Your task to perform on an android device: manage bookmarks in the chrome app Image 0: 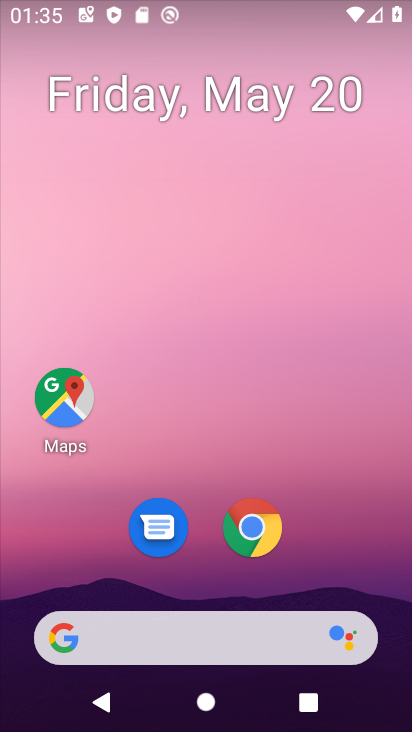
Step 0: press home button
Your task to perform on an android device: manage bookmarks in the chrome app Image 1: 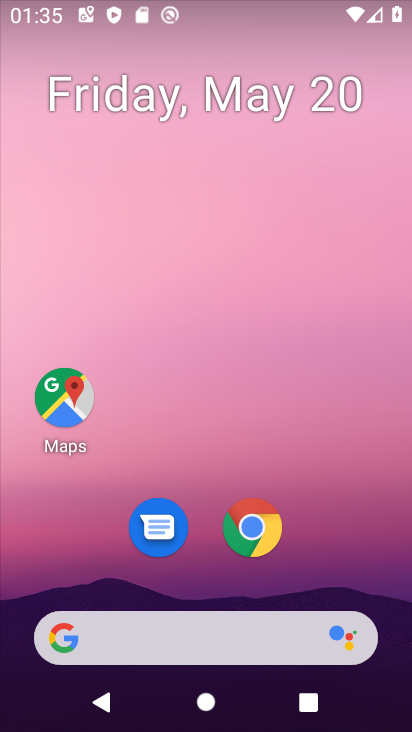
Step 1: click (246, 540)
Your task to perform on an android device: manage bookmarks in the chrome app Image 2: 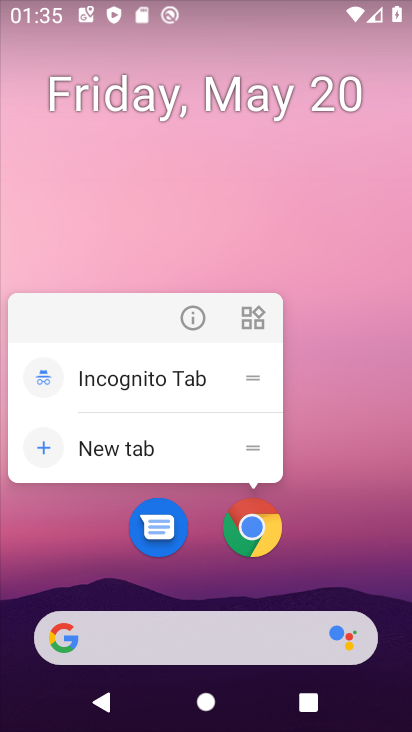
Step 2: click (254, 531)
Your task to perform on an android device: manage bookmarks in the chrome app Image 3: 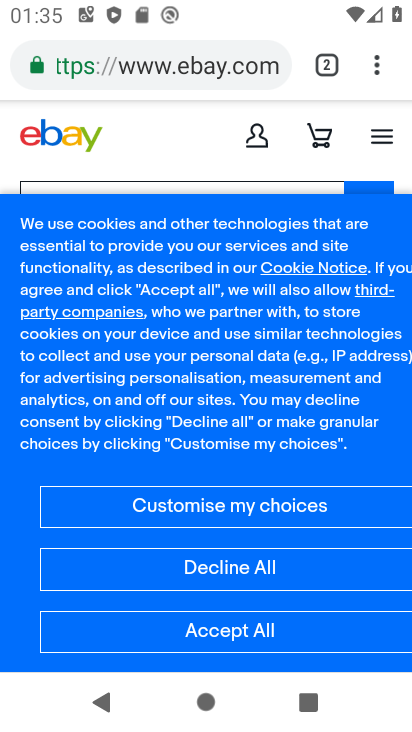
Step 3: click (377, 65)
Your task to perform on an android device: manage bookmarks in the chrome app Image 4: 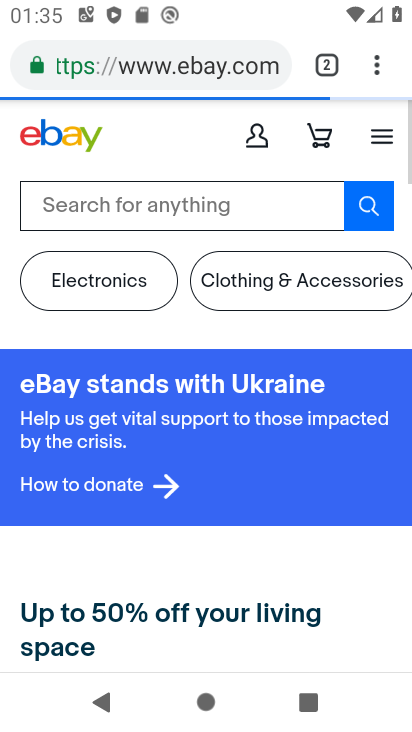
Step 4: task complete